Your task to perform on an android device: Open network settings Image 0: 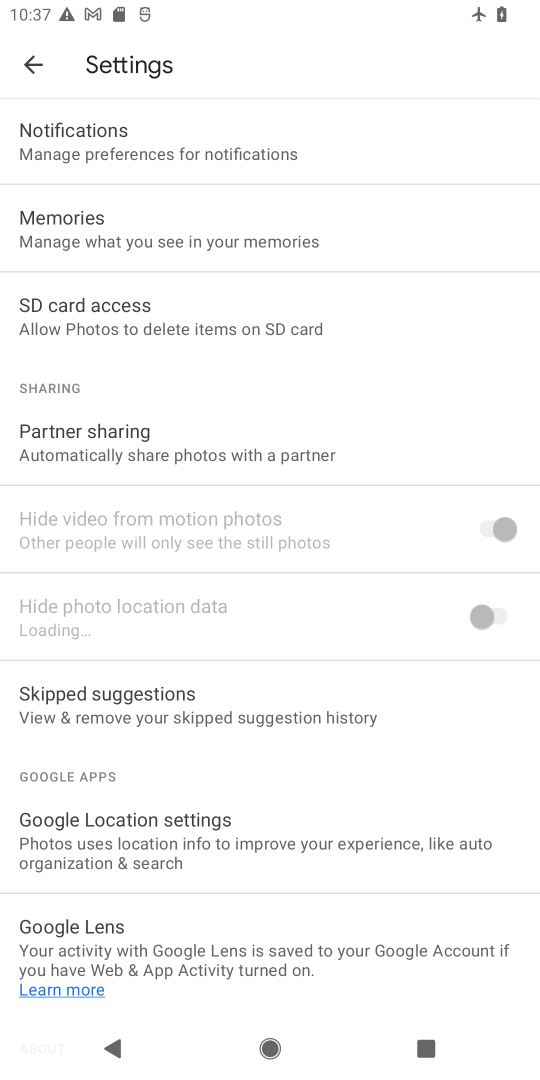
Step 0: press home button
Your task to perform on an android device: Open network settings Image 1: 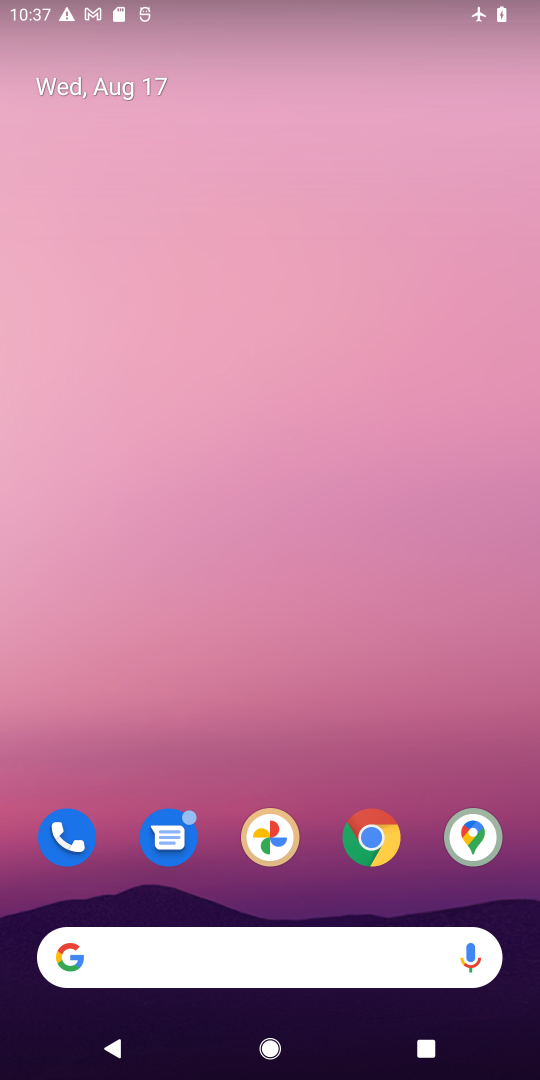
Step 1: drag from (230, 975) to (351, 328)
Your task to perform on an android device: Open network settings Image 2: 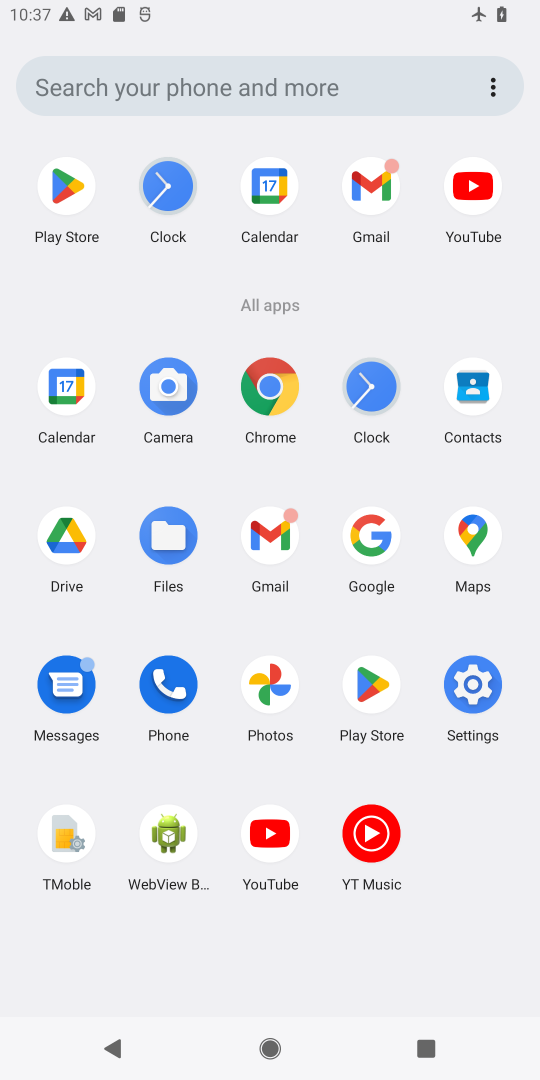
Step 2: click (471, 685)
Your task to perform on an android device: Open network settings Image 3: 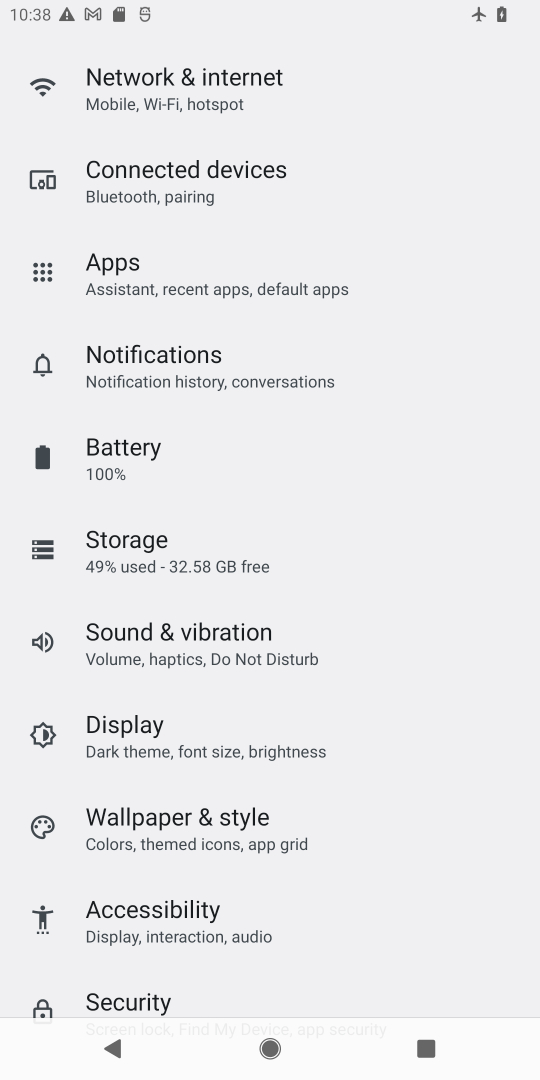
Step 3: click (212, 100)
Your task to perform on an android device: Open network settings Image 4: 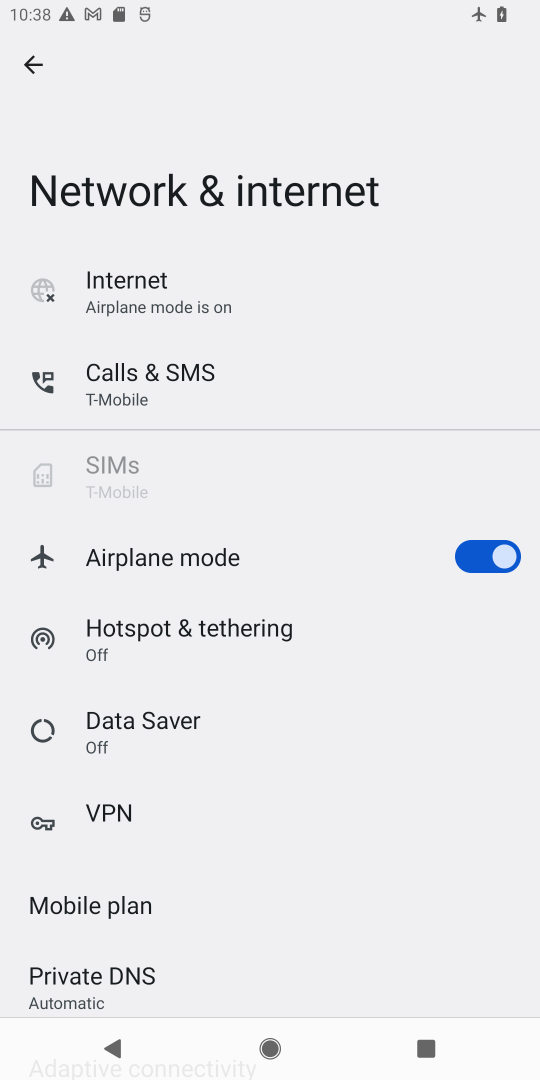
Step 4: task complete